Your task to perform on an android device: Open CNN.com Image 0: 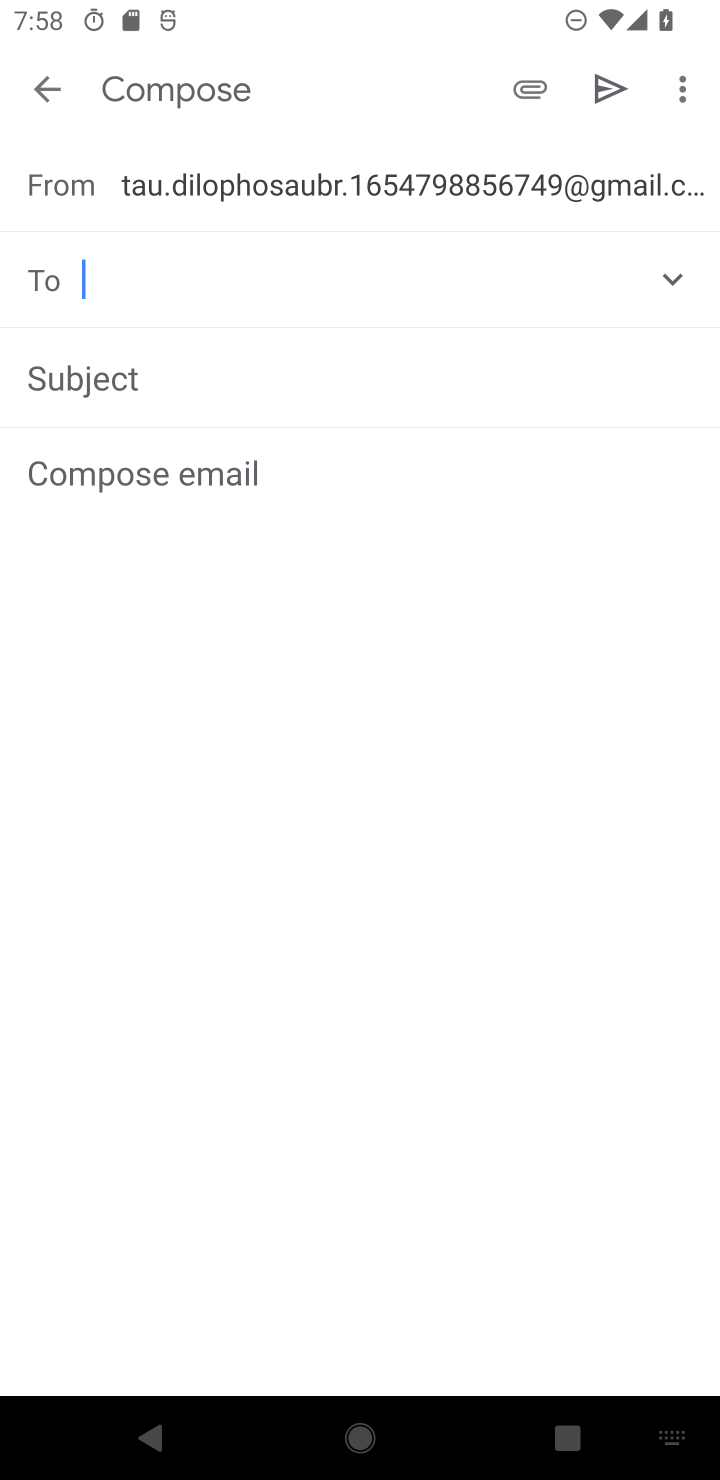
Step 0: press home button
Your task to perform on an android device: Open CNN.com Image 1: 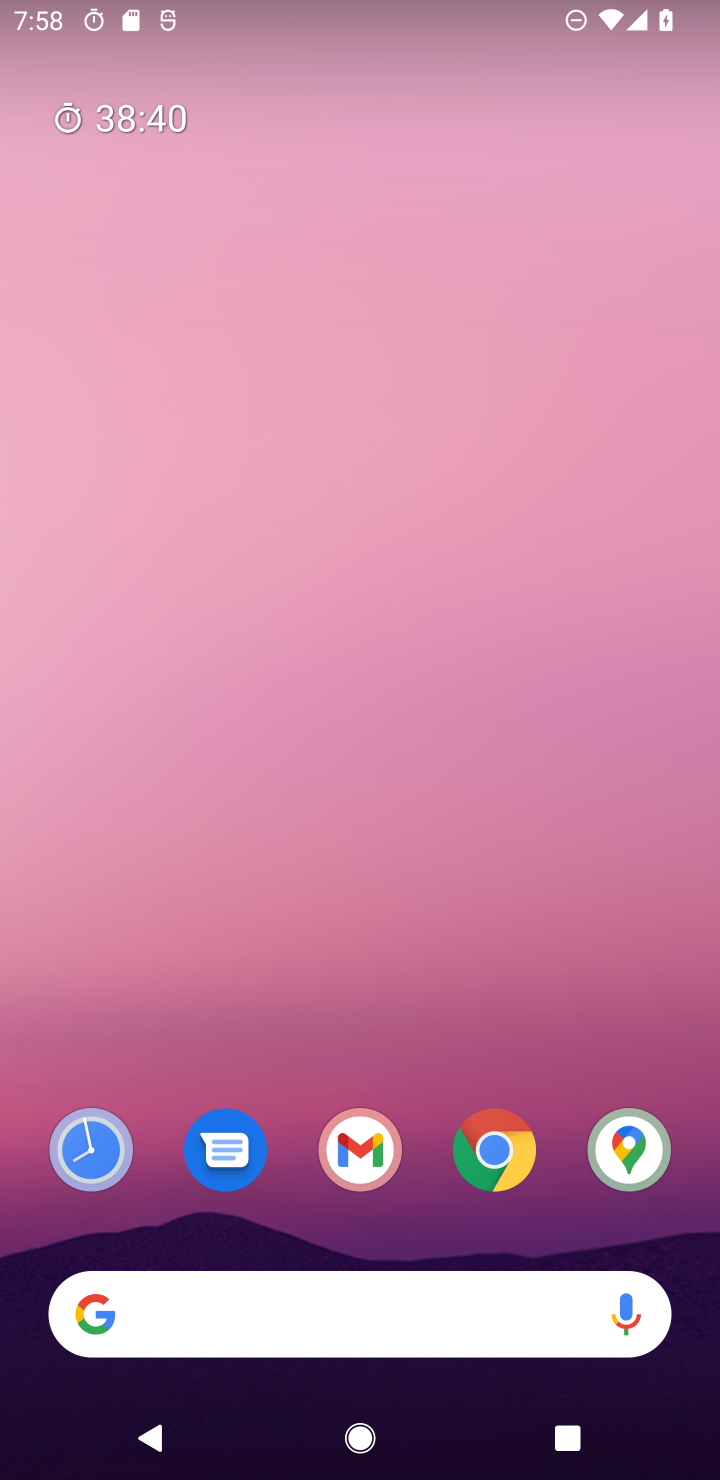
Step 1: click (495, 1146)
Your task to perform on an android device: Open CNN.com Image 2: 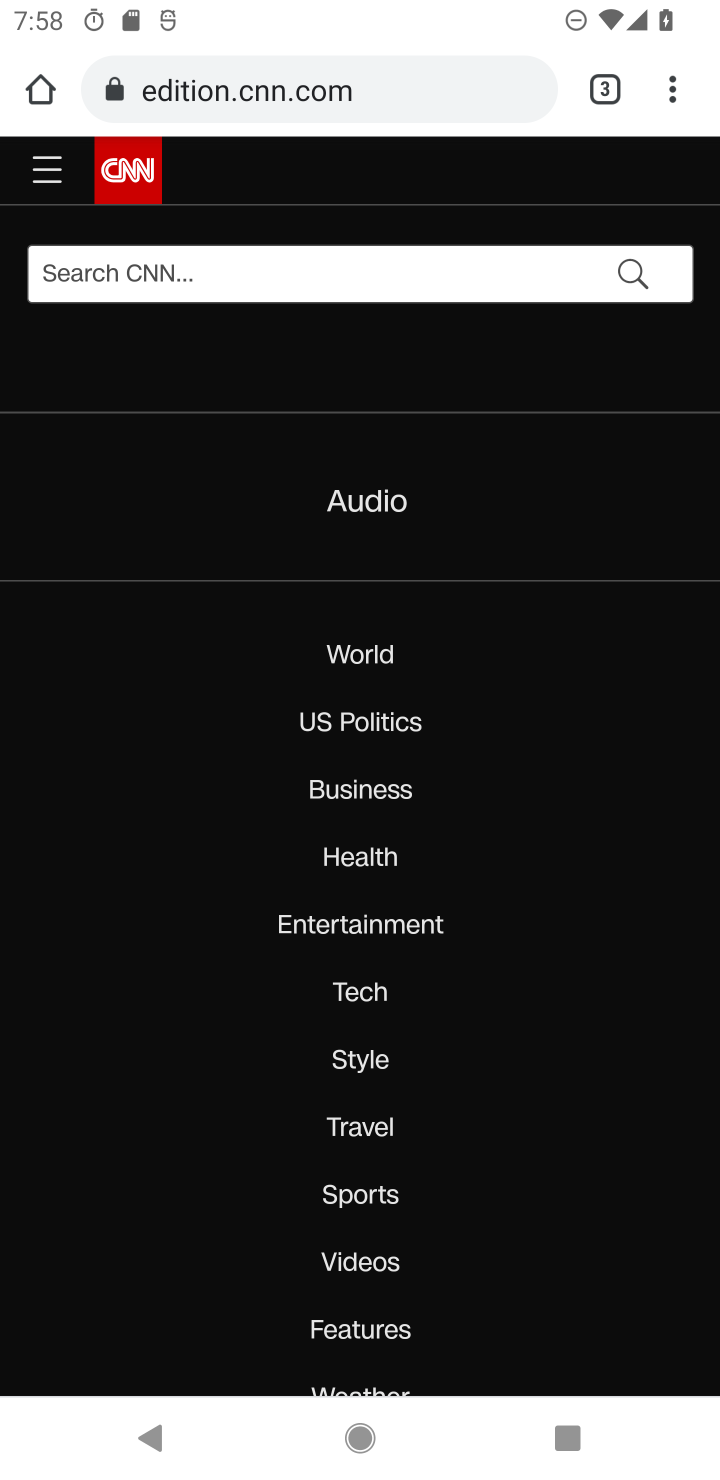
Step 2: task complete